Your task to perform on an android device: allow notifications from all sites in the chrome app Image 0: 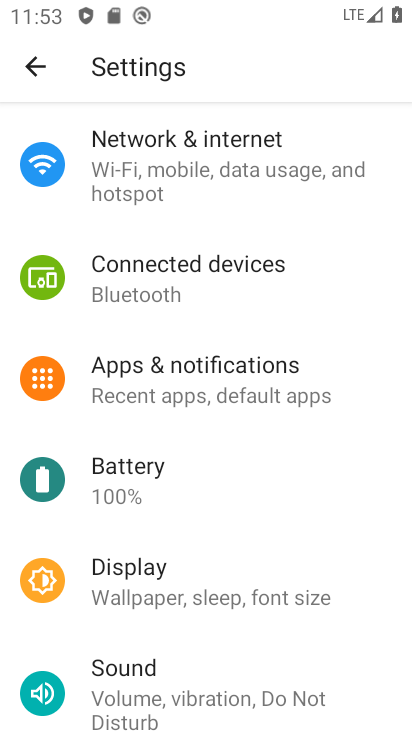
Step 0: press home button
Your task to perform on an android device: allow notifications from all sites in the chrome app Image 1: 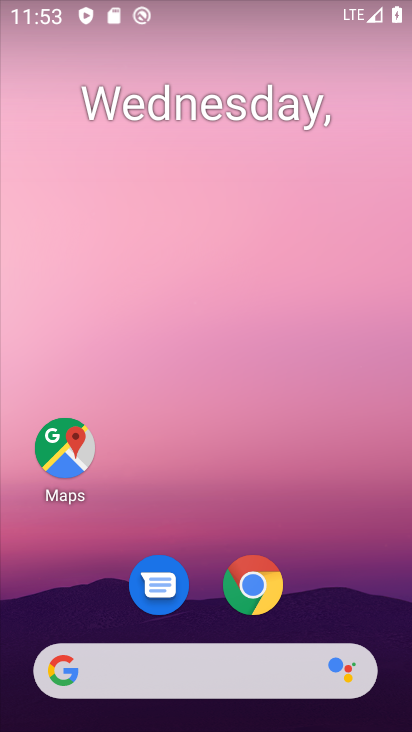
Step 1: click (249, 569)
Your task to perform on an android device: allow notifications from all sites in the chrome app Image 2: 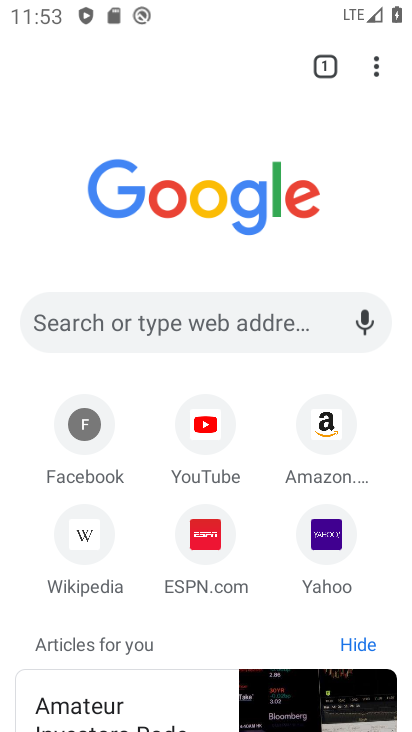
Step 2: click (378, 67)
Your task to perform on an android device: allow notifications from all sites in the chrome app Image 3: 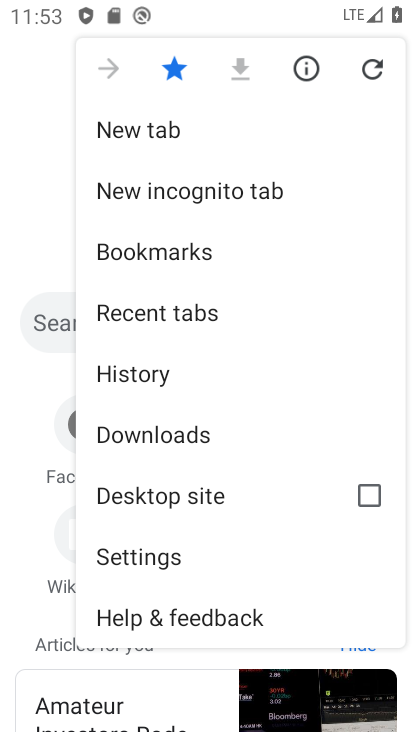
Step 3: click (164, 548)
Your task to perform on an android device: allow notifications from all sites in the chrome app Image 4: 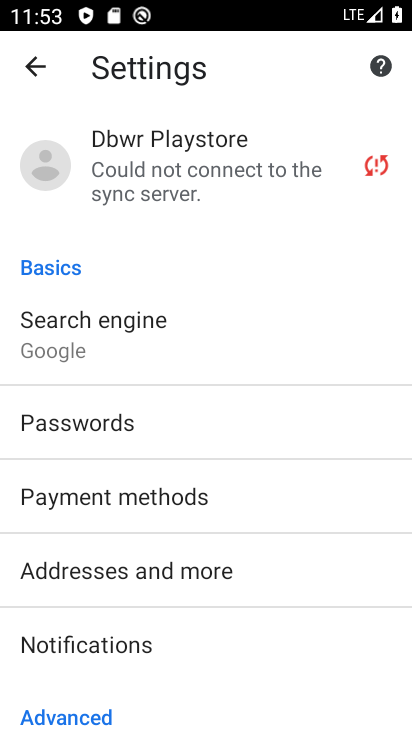
Step 4: click (159, 636)
Your task to perform on an android device: allow notifications from all sites in the chrome app Image 5: 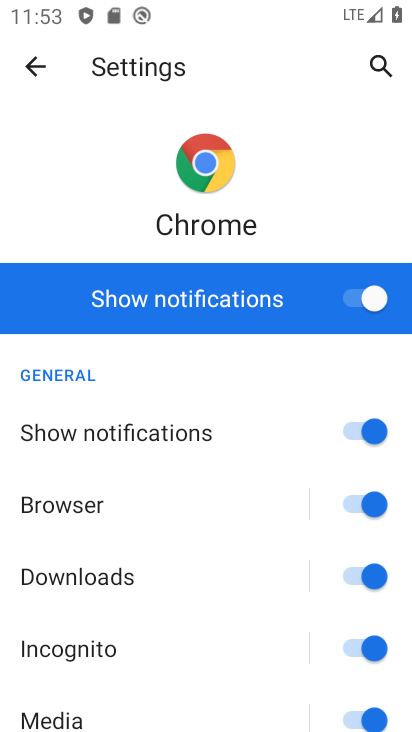
Step 5: task complete